Your task to perform on an android device: delete the emails in spam in the gmail app Image 0: 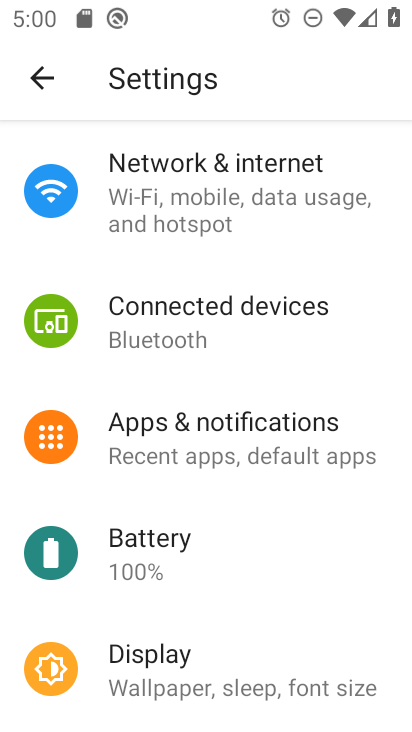
Step 0: press home button
Your task to perform on an android device: delete the emails in spam in the gmail app Image 1: 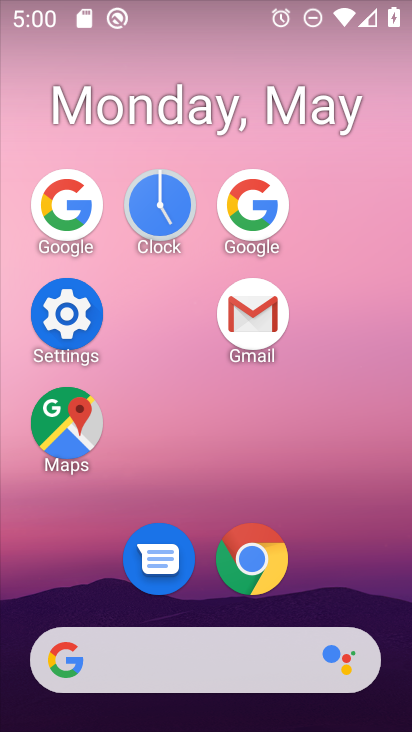
Step 1: click (265, 320)
Your task to perform on an android device: delete the emails in spam in the gmail app Image 2: 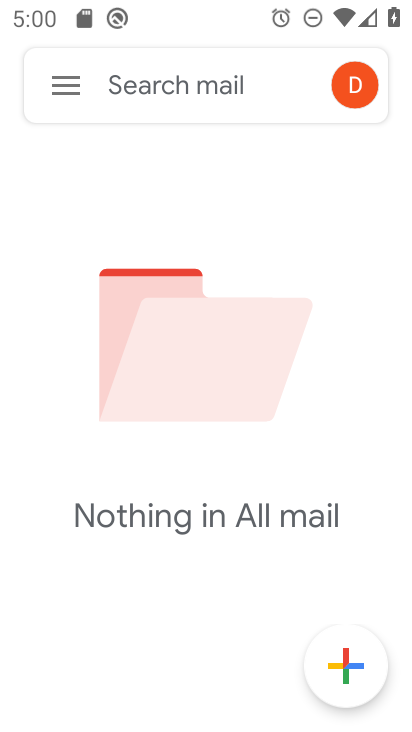
Step 2: click (70, 78)
Your task to perform on an android device: delete the emails in spam in the gmail app Image 3: 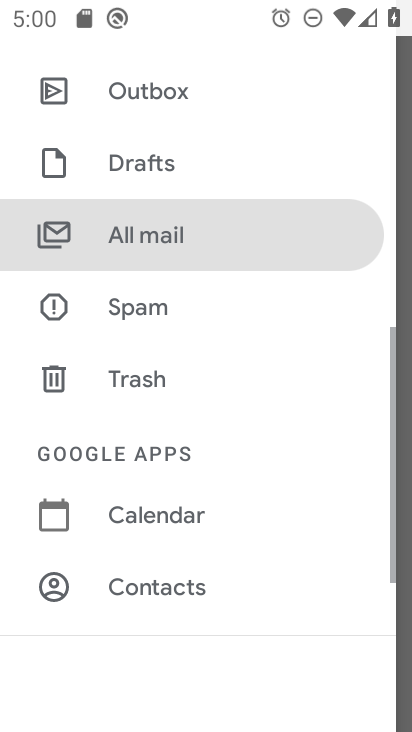
Step 3: click (209, 260)
Your task to perform on an android device: delete the emails in spam in the gmail app Image 4: 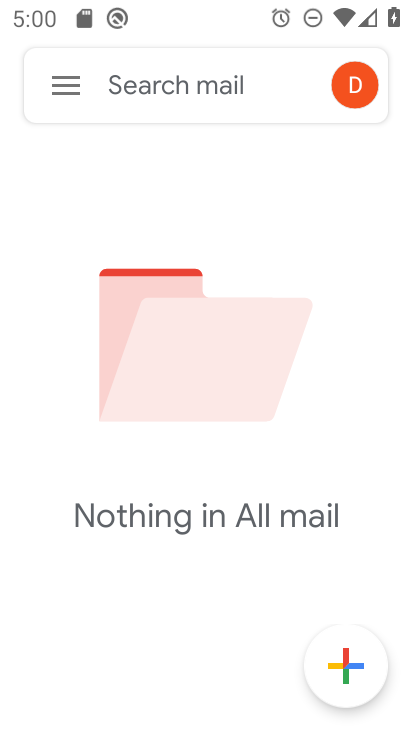
Step 4: task complete